Your task to perform on an android device: Open Google Image 0: 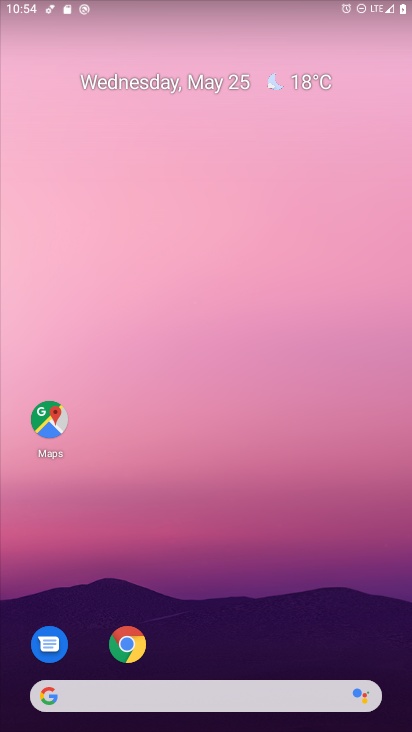
Step 0: drag from (203, 663) to (217, 30)
Your task to perform on an android device: Open Google Image 1: 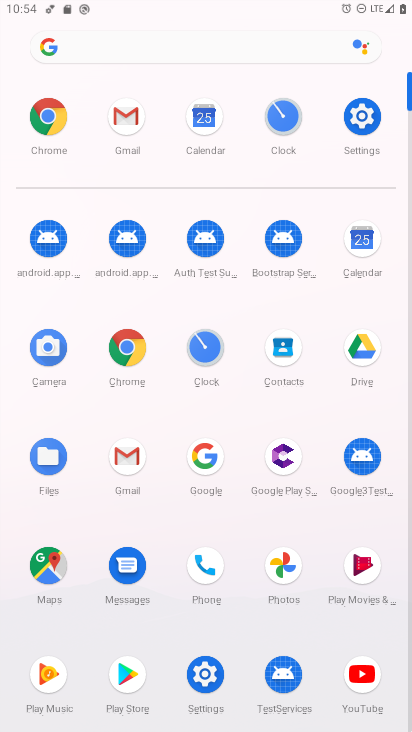
Step 1: click (201, 452)
Your task to perform on an android device: Open Google Image 2: 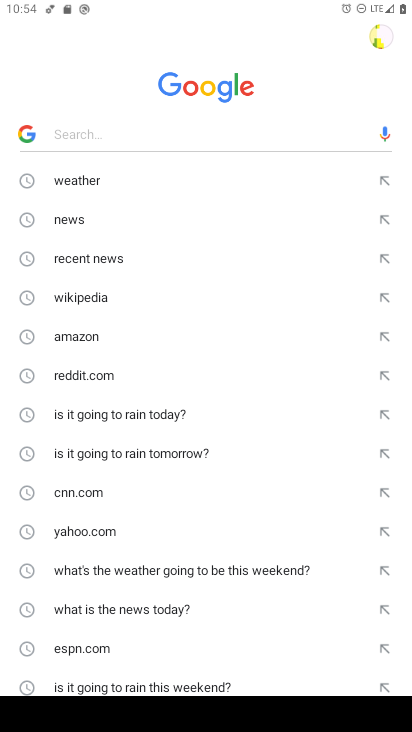
Step 2: press back button
Your task to perform on an android device: Open Google Image 3: 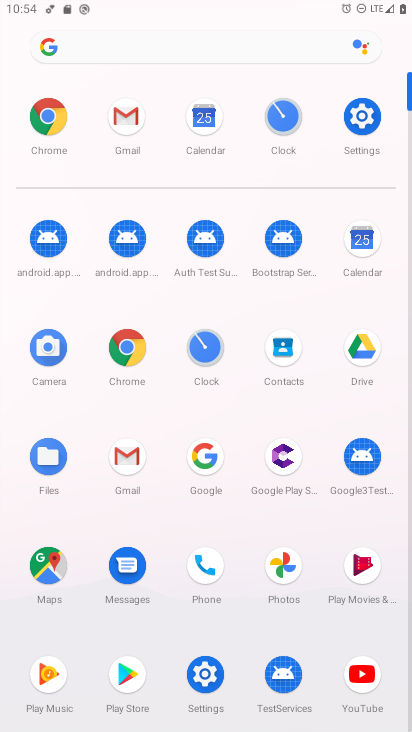
Step 3: click (203, 450)
Your task to perform on an android device: Open Google Image 4: 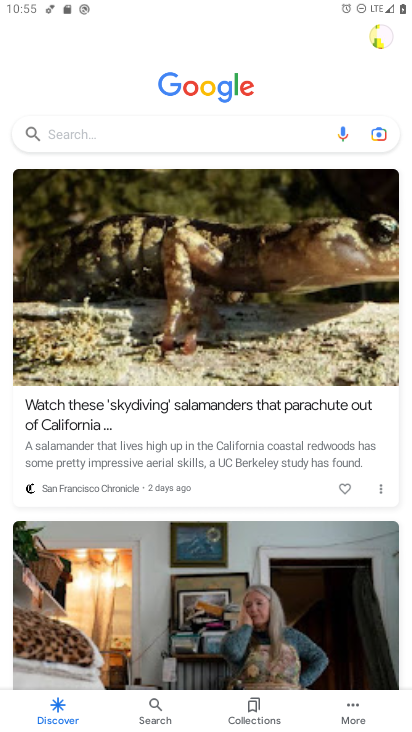
Step 4: task complete